Your task to perform on an android device: turn notification dots on Image 0: 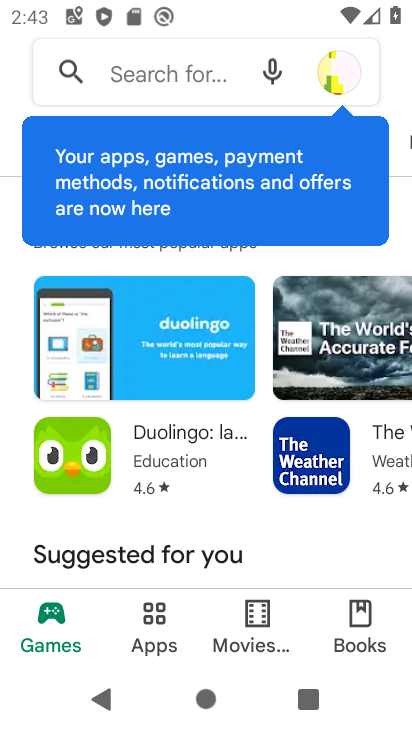
Step 0: press home button
Your task to perform on an android device: turn notification dots on Image 1: 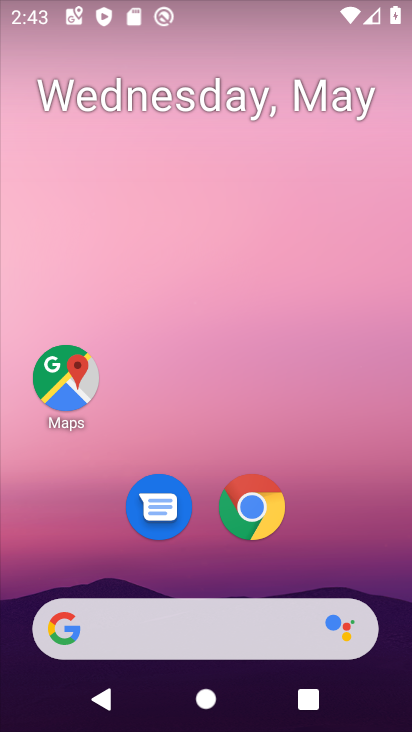
Step 1: drag from (216, 583) to (189, 16)
Your task to perform on an android device: turn notification dots on Image 2: 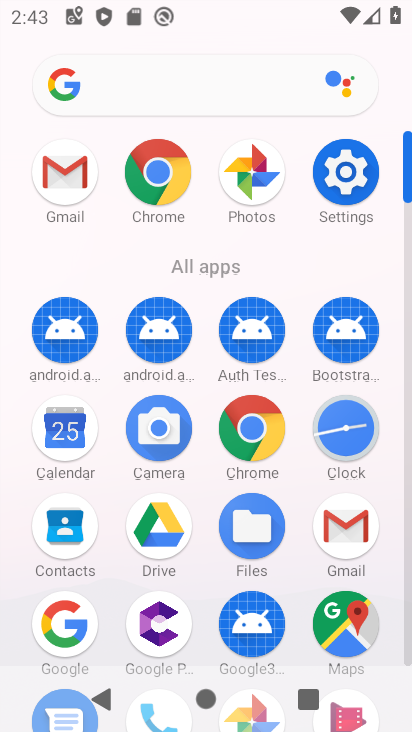
Step 2: click (351, 189)
Your task to perform on an android device: turn notification dots on Image 3: 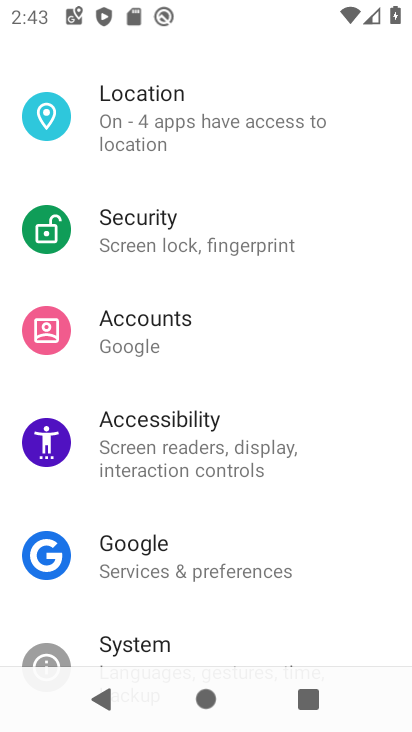
Step 3: drag from (242, 292) to (216, 580)
Your task to perform on an android device: turn notification dots on Image 4: 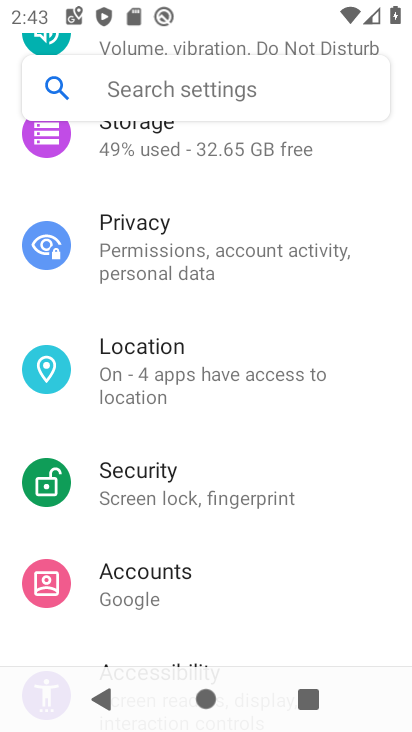
Step 4: drag from (230, 383) to (223, 539)
Your task to perform on an android device: turn notification dots on Image 5: 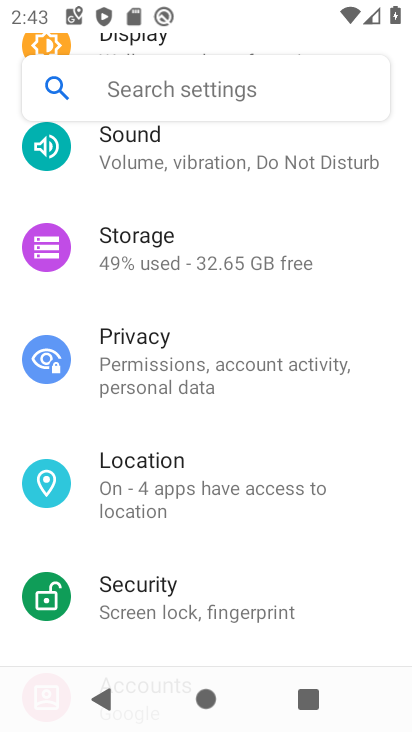
Step 5: drag from (234, 308) to (242, 615)
Your task to perform on an android device: turn notification dots on Image 6: 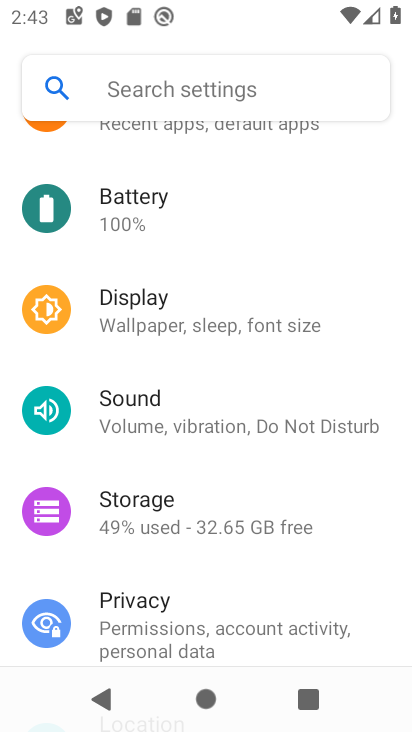
Step 6: drag from (239, 290) to (248, 564)
Your task to perform on an android device: turn notification dots on Image 7: 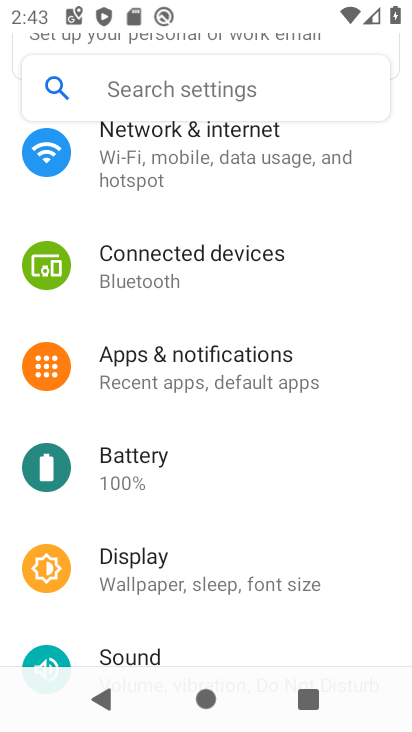
Step 7: click (254, 357)
Your task to perform on an android device: turn notification dots on Image 8: 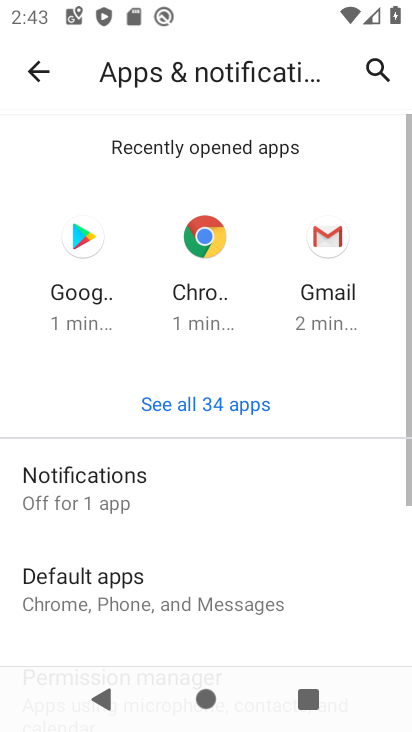
Step 8: click (157, 504)
Your task to perform on an android device: turn notification dots on Image 9: 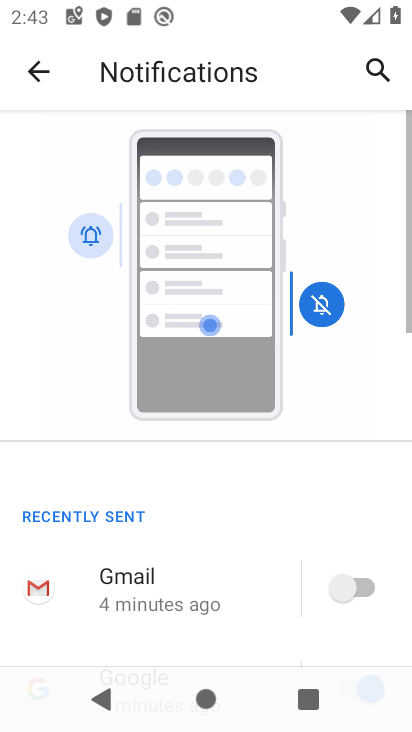
Step 9: drag from (188, 537) to (249, 36)
Your task to perform on an android device: turn notification dots on Image 10: 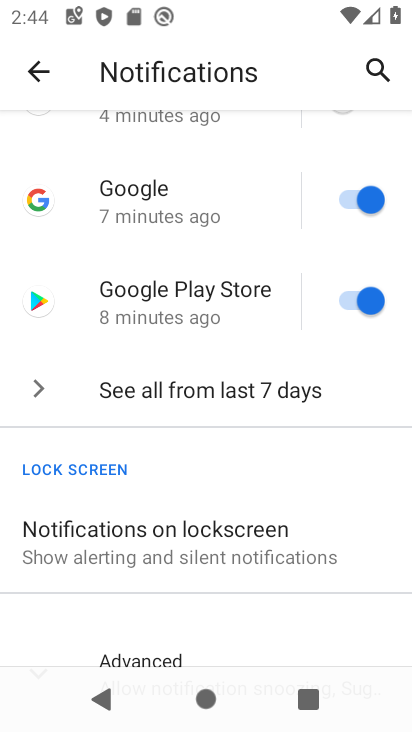
Step 10: drag from (233, 538) to (260, 198)
Your task to perform on an android device: turn notification dots on Image 11: 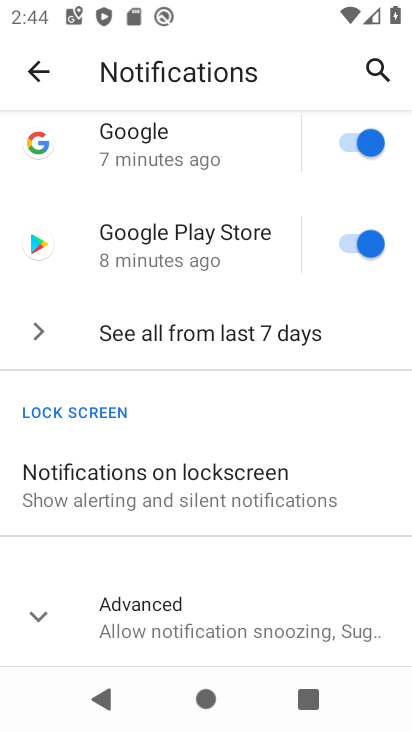
Step 11: click (40, 616)
Your task to perform on an android device: turn notification dots on Image 12: 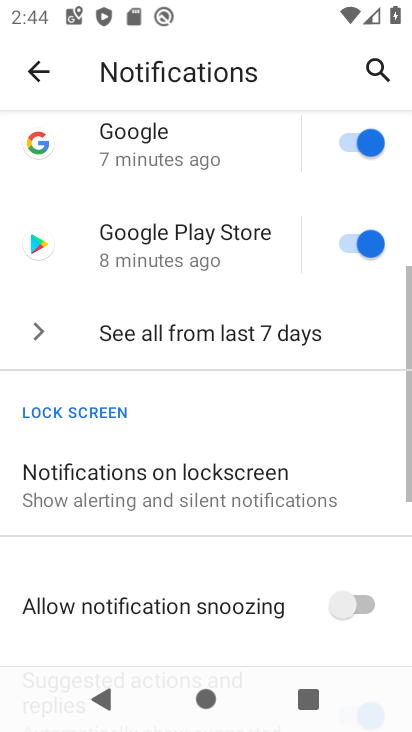
Step 12: task complete